Your task to perform on an android device: toggle javascript in the chrome app Image 0: 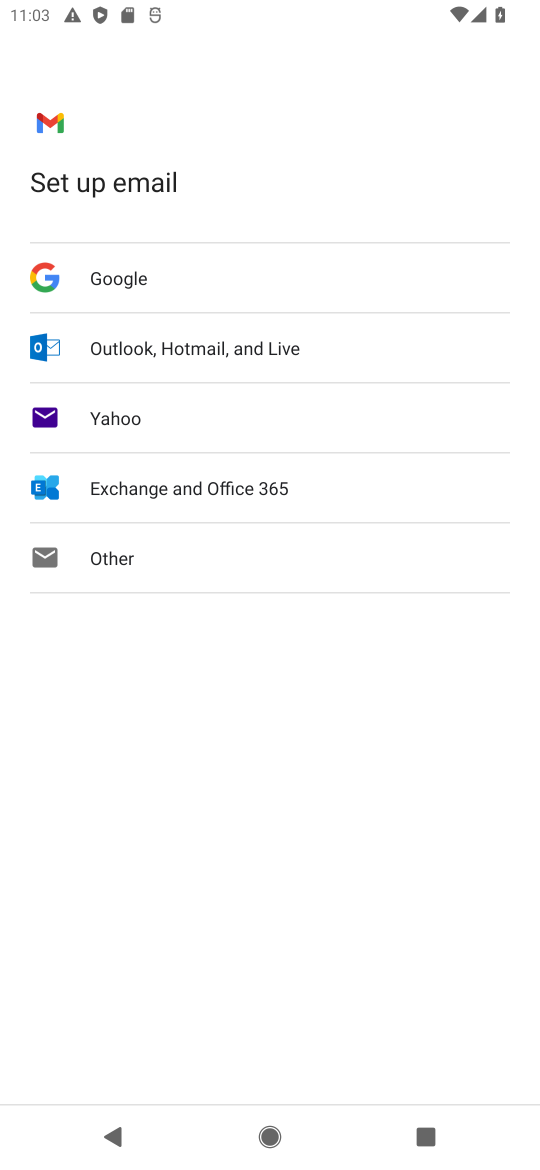
Step 0: press home button
Your task to perform on an android device: toggle javascript in the chrome app Image 1: 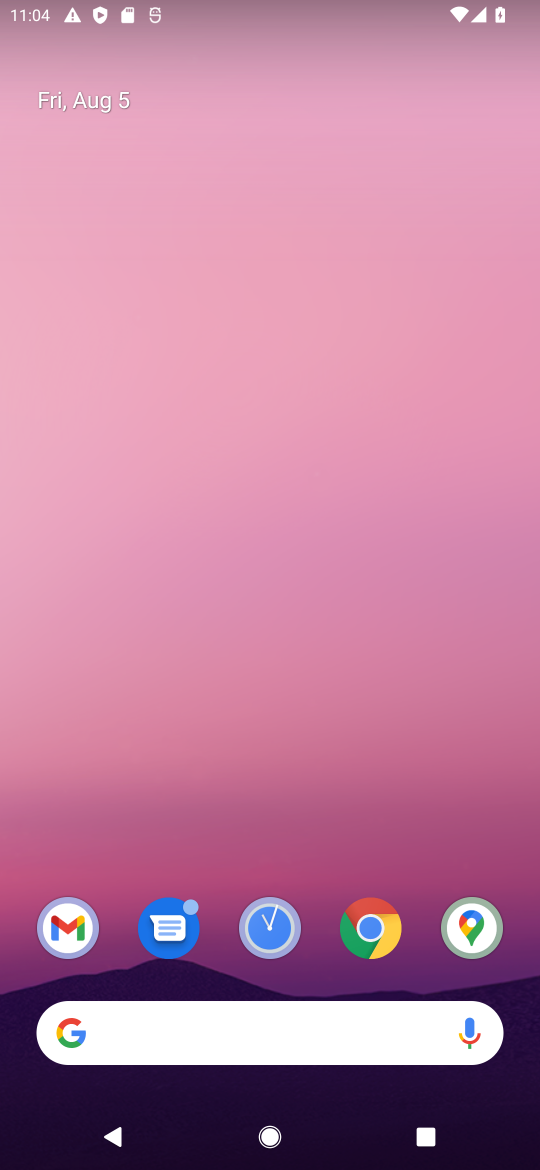
Step 1: drag from (213, 701) to (244, 10)
Your task to perform on an android device: toggle javascript in the chrome app Image 2: 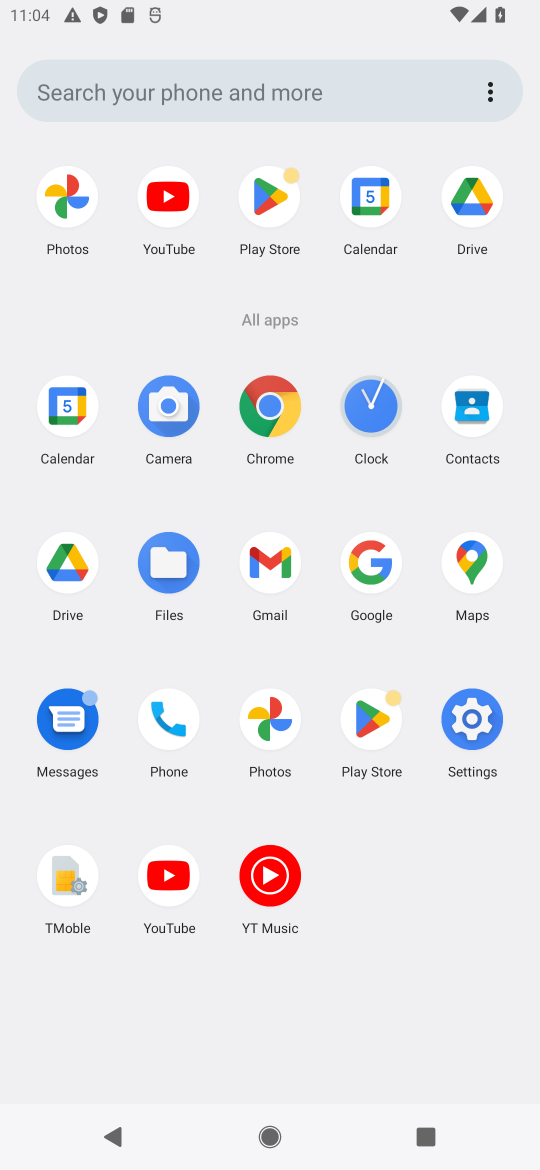
Step 2: click (231, 383)
Your task to perform on an android device: toggle javascript in the chrome app Image 3: 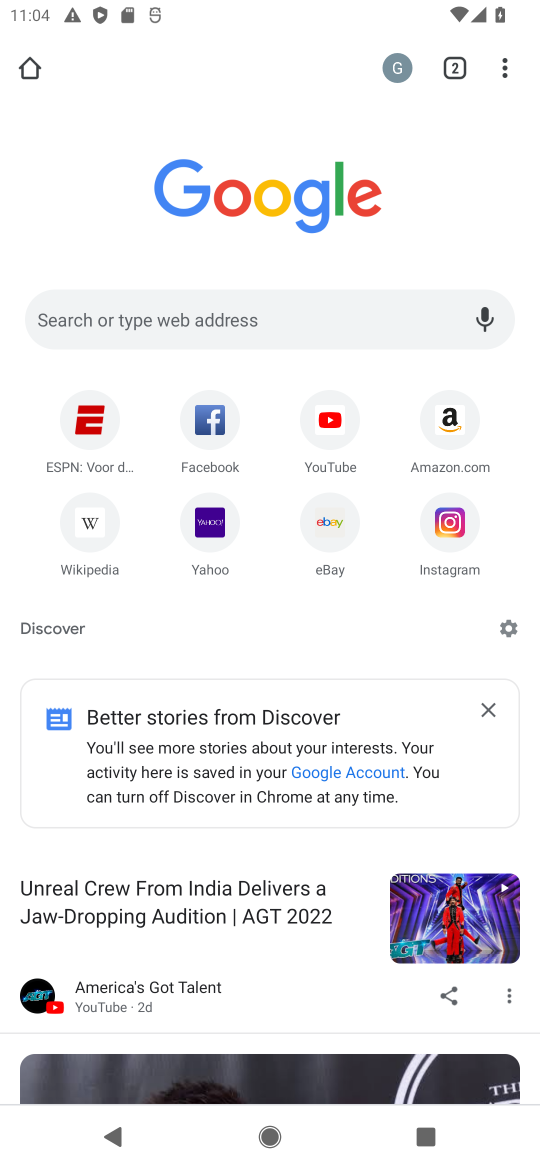
Step 3: click (497, 78)
Your task to perform on an android device: toggle javascript in the chrome app Image 4: 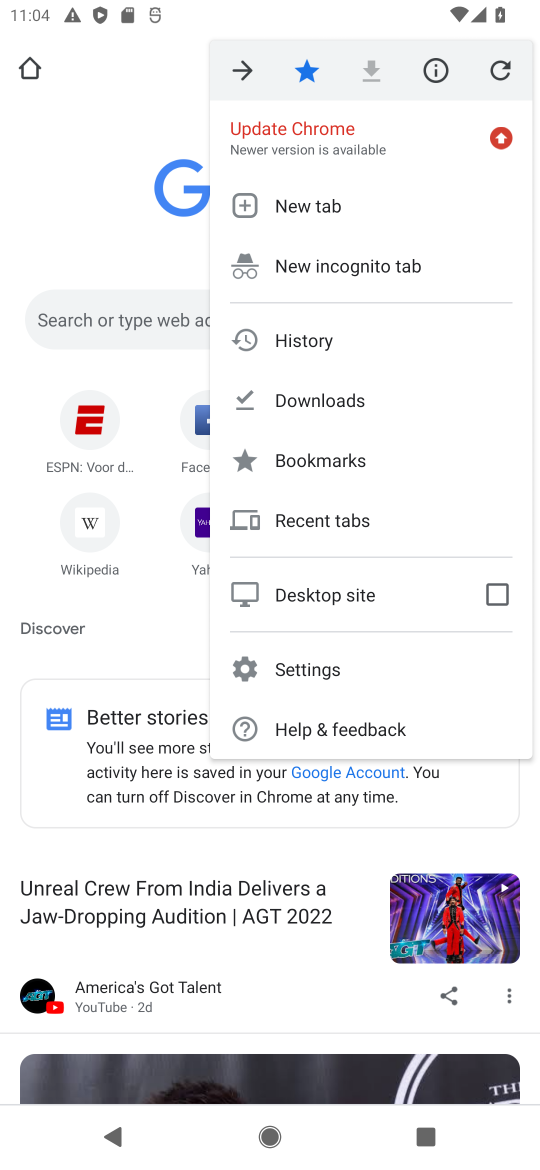
Step 4: click (277, 663)
Your task to perform on an android device: toggle javascript in the chrome app Image 5: 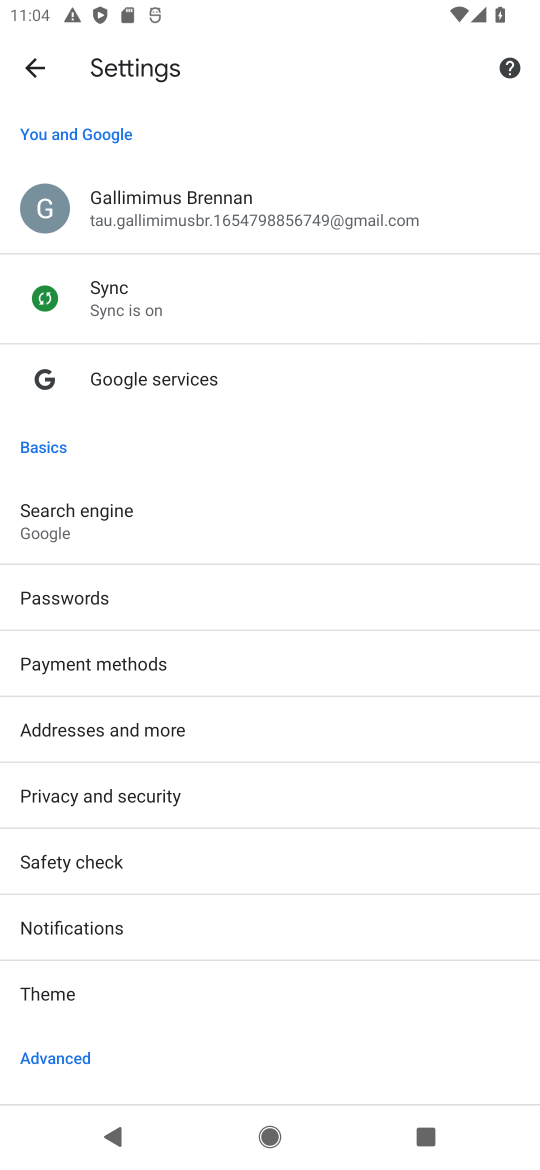
Step 5: drag from (219, 833) to (121, 228)
Your task to perform on an android device: toggle javascript in the chrome app Image 6: 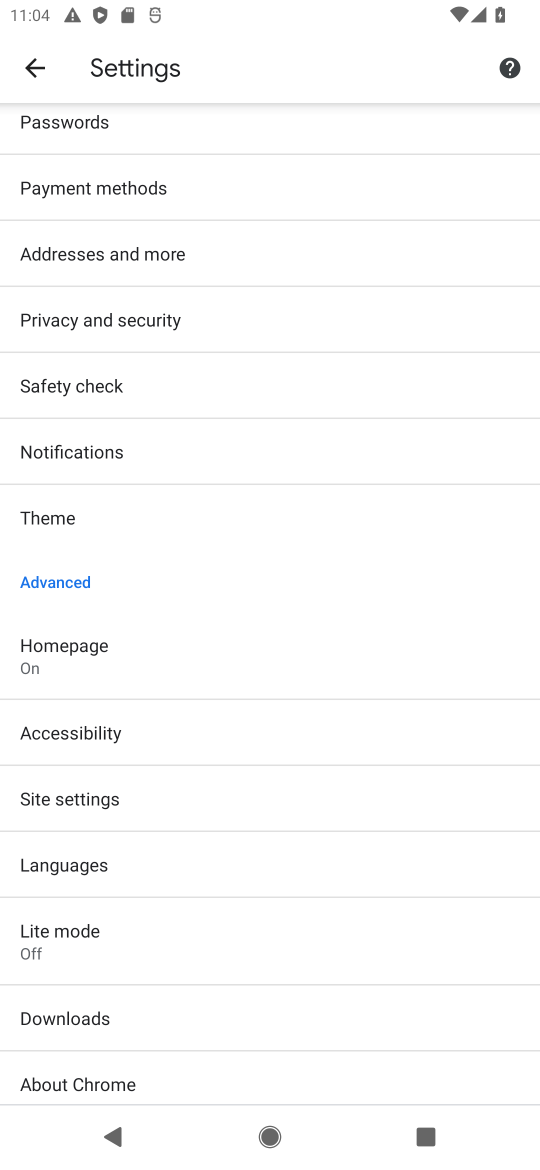
Step 6: click (107, 807)
Your task to perform on an android device: toggle javascript in the chrome app Image 7: 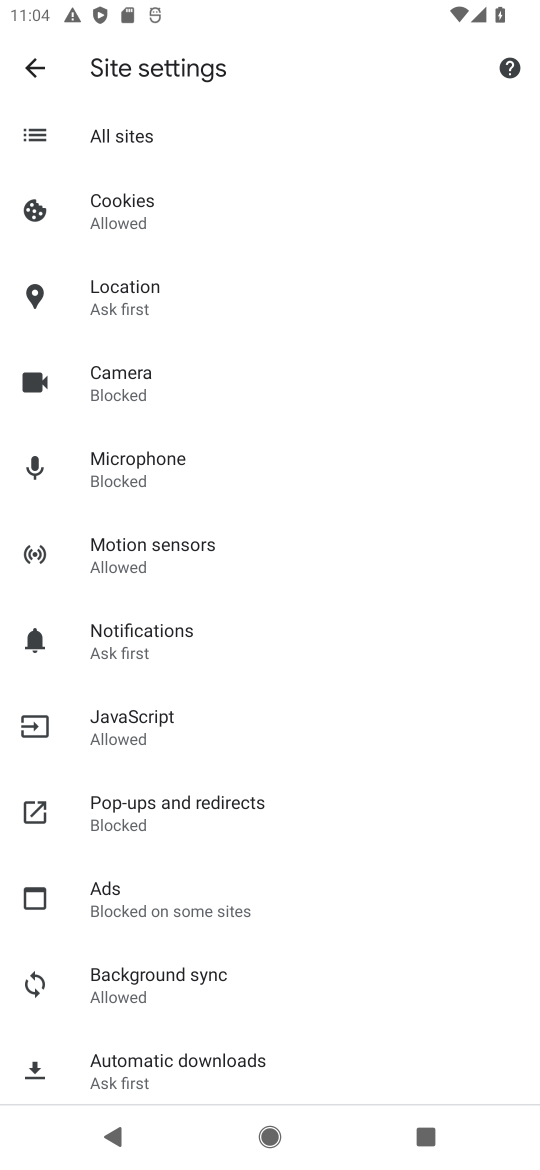
Step 7: click (105, 733)
Your task to perform on an android device: toggle javascript in the chrome app Image 8: 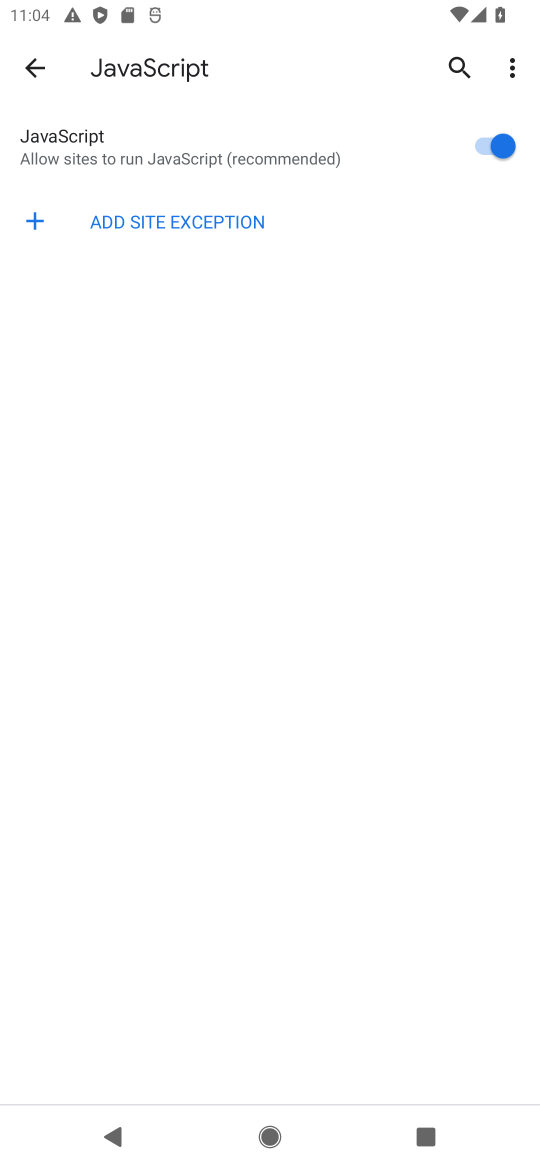
Step 8: click (486, 139)
Your task to perform on an android device: toggle javascript in the chrome app Image 9: 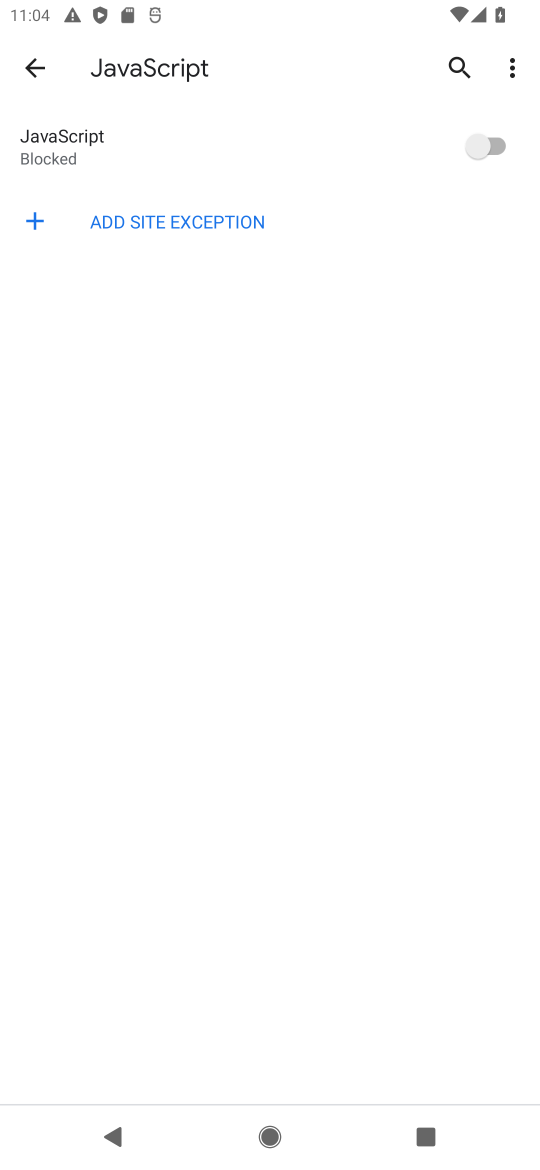
Step 9: task complete